Your task to perform on an android device: open a bookmark in the chrome app Image 0: 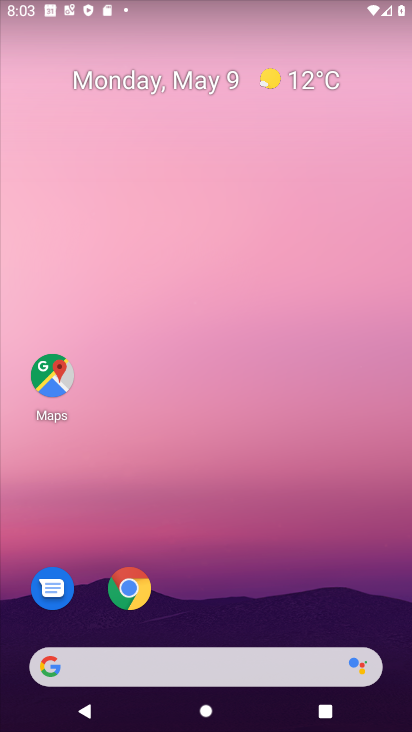
Step 0: press home button
Your task to perform on an android device: open a bookmark in the chrome app Image 1: 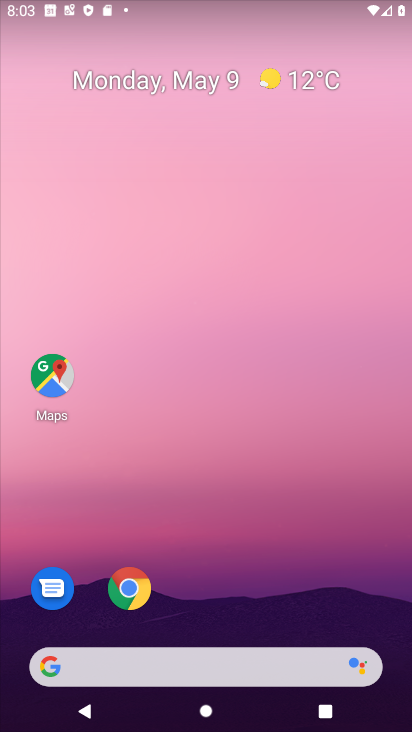
Step 1: drag from (171, 671) to (330, 146)
Your task to perform on an android device: open a bookmark in the chrome app Image 2: 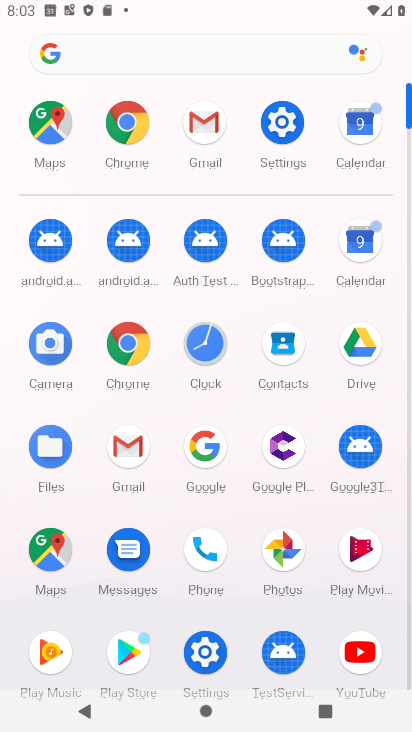
Step 2: click (127, 141)
Your task to perform on an android device: open a bookmark in the chrome app Image 3: 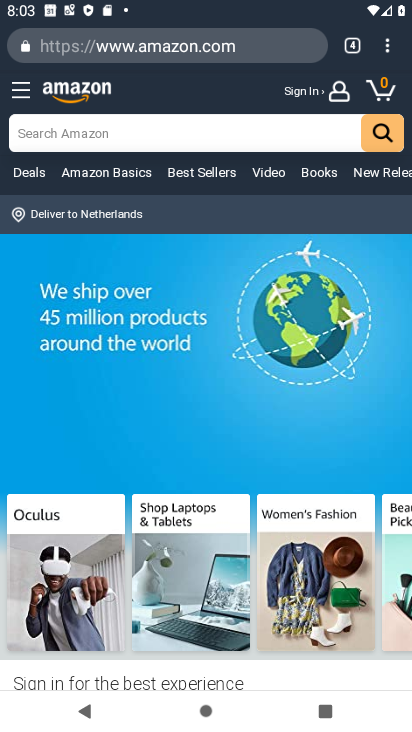
Step 3: task complete